Your task to perform on an android device: Go to Maps Image 0: 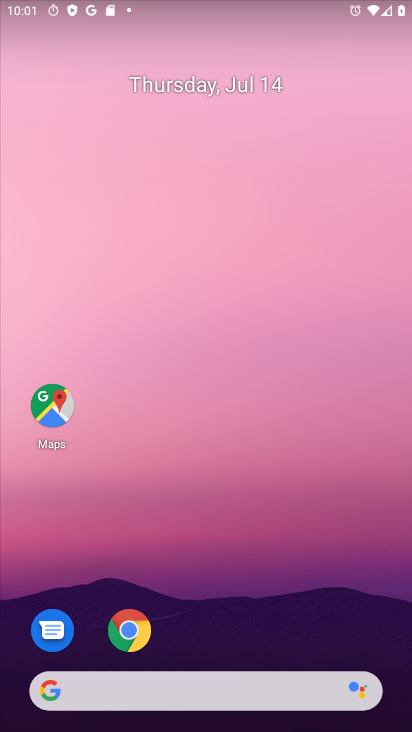
Step 0: click (49, 412)
Your task to perform on an android device: Go to Maps Image 1: 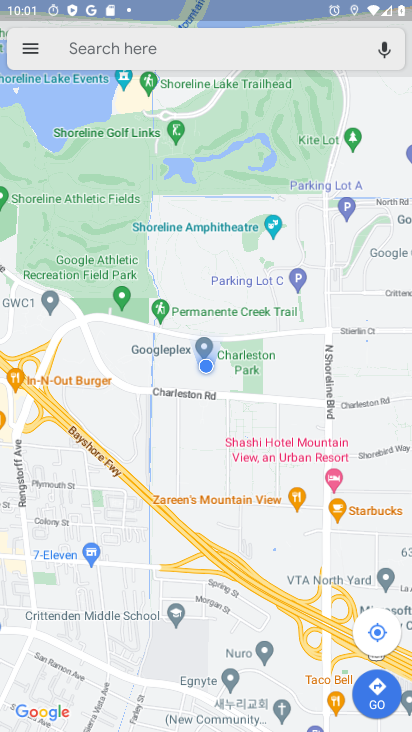
Step 1: task complete